Your task to perform on an android device: Open Android settings Image 0: 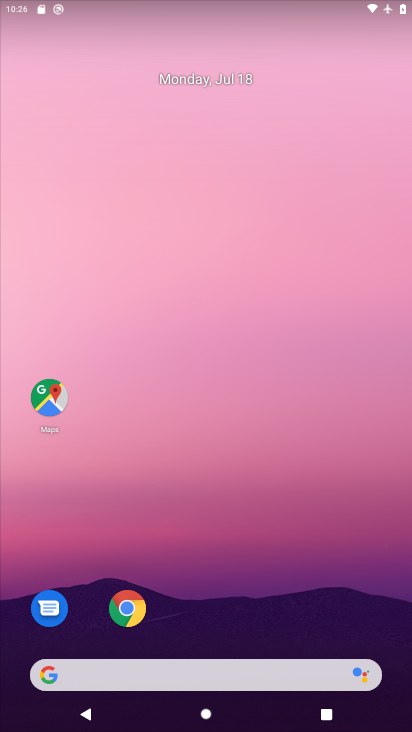
Step 0: drag from (202, 658) to (199, 19)
Your task to perform on an android device: Open Android settings Image 1: 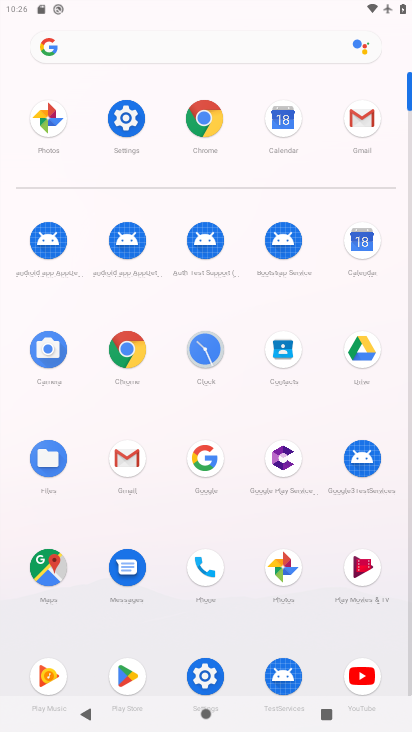
Step 1: click (217, 673)
Your task to perform on an android device: Open Android settings Image 2: 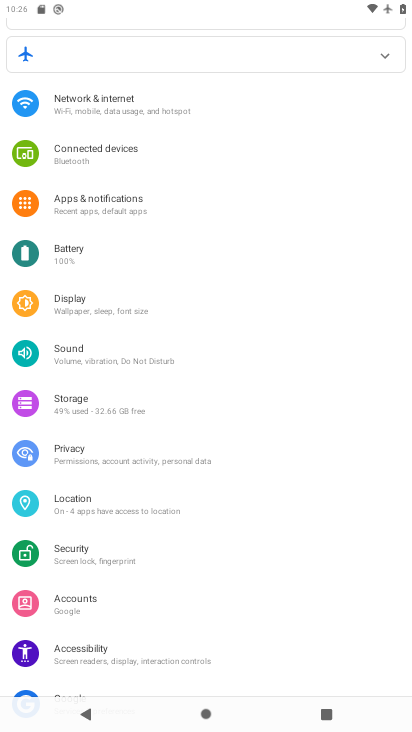
Step 2: task complete